Your task to perform on an android device: Go to sound settings Image 0: 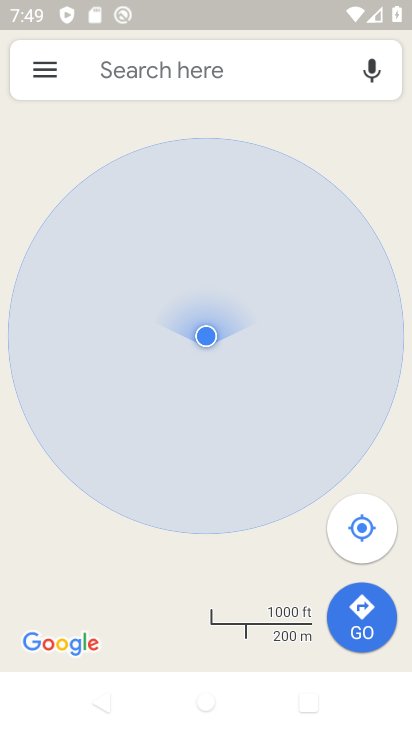
Step 0: click (186, 204)
Your task to perform on an android device: Go to sound settings Image 1: 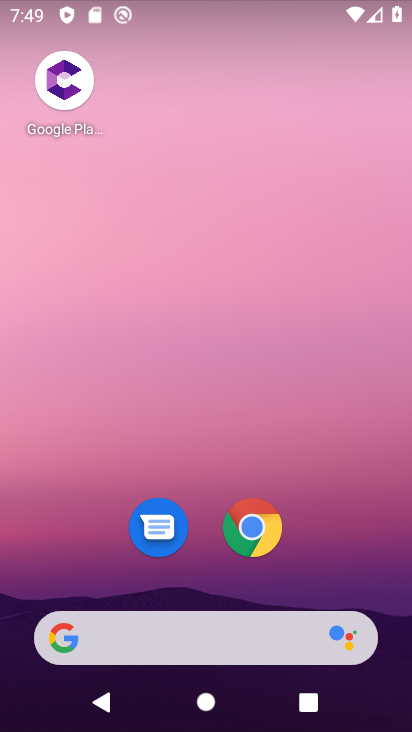
Step 1: drag from (215, 579) to (215, 97)
Your task to perform on an android device: Go to sound settings Image 2: 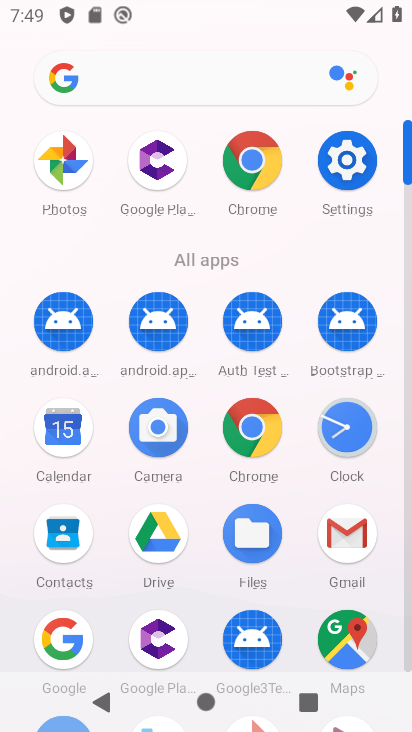
Step 2: click (330, 148)
Your task to perform on an android device: Go to sound settings Image 3: 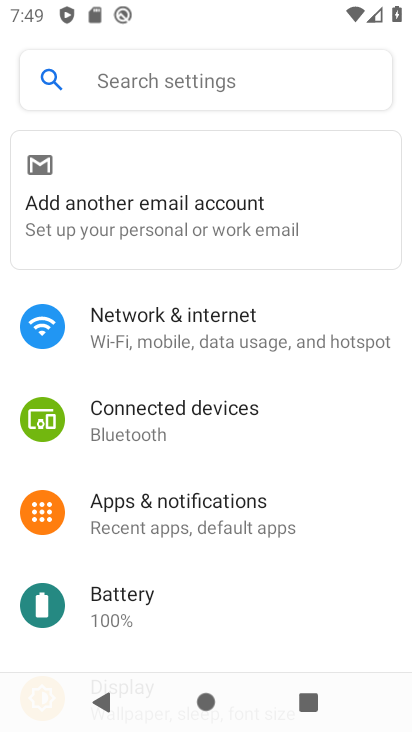
Step 3: drag from (162, 577) to (197, 266)
Your task to perform on an android device: Go to sound settings Image 4: 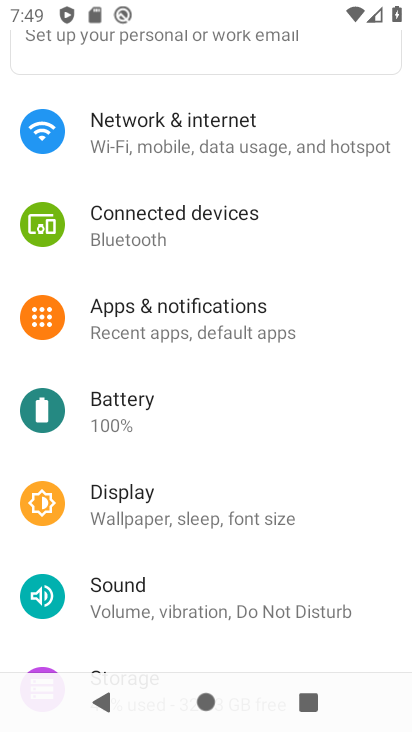
Step 4: click (152, 613)
Your task to perform on an android device: Go to sound settings Image 5: 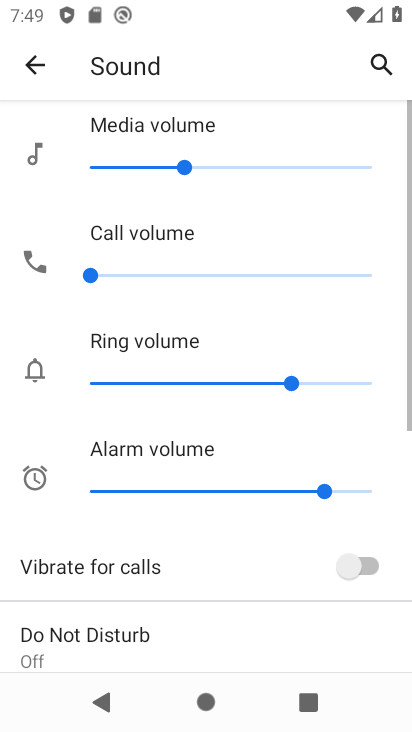
Step 5: task complete